Your task to perform on an android device: set an alarm Image 0: 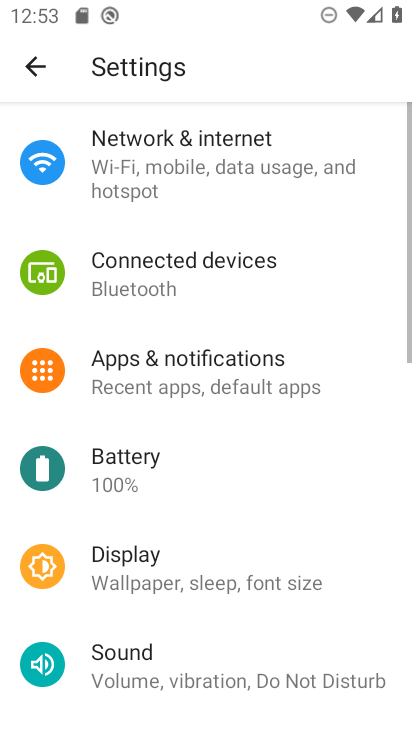
Step 0: press home button
Your task to perform on an android device: set an alarm Image 1: 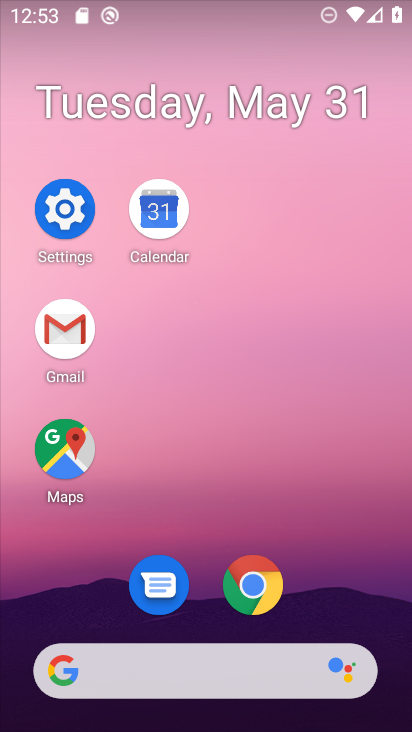
Step 1: drag from (340, 592) to (309, 133)
Your task to perform on an android device: set an alarm Image 2: 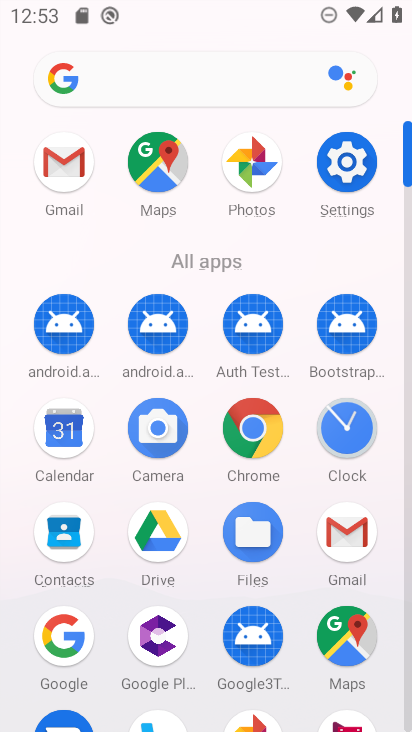
Step 2: drag from (345, 435) to (163, 349)
Your task to perform on an android device: set an alarm Image 3: 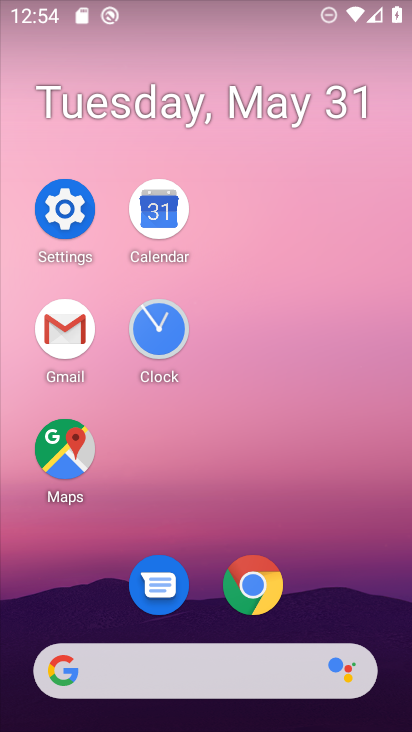
Step 3: click (163, 336)
Your task to perform on an android device: set an alarm Image 4: 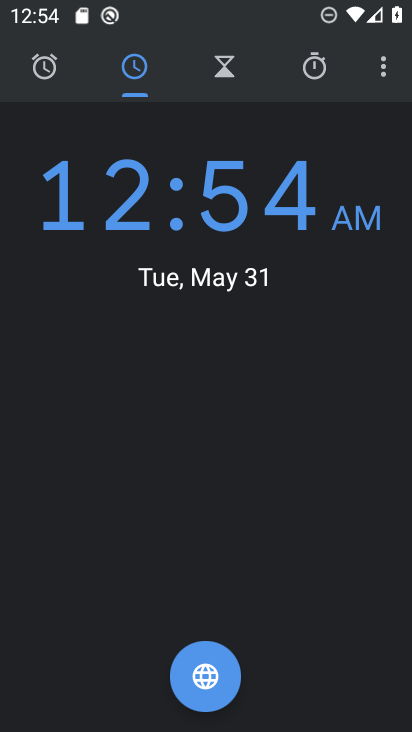
Step 4: click (51, 71)
Your task to perform on an android device: set an alarm Image 5: 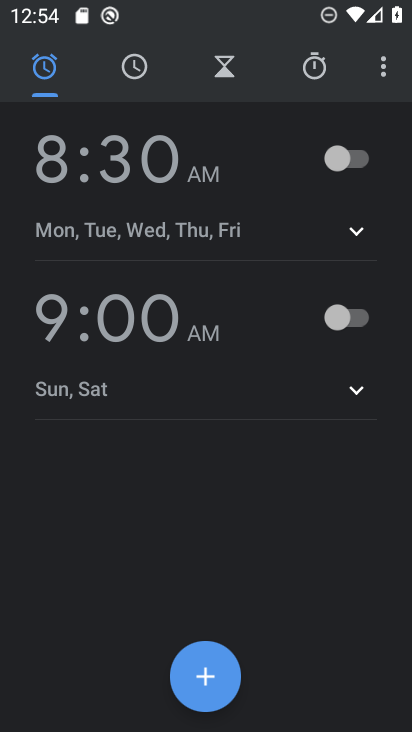
Step 5: click (357, 164)
Your task to perform on an android device: set an alarm Image 6: 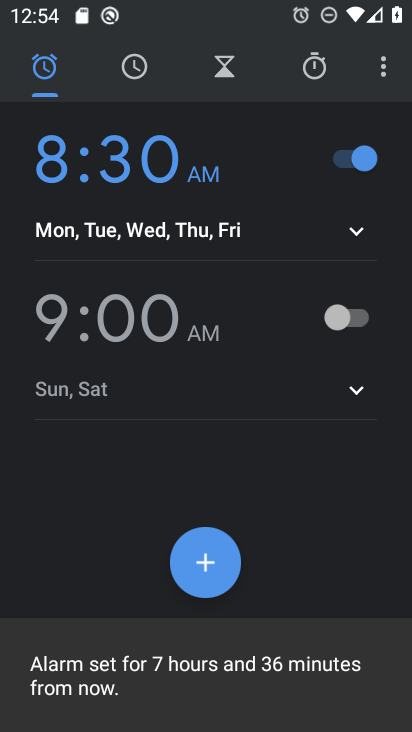
Step 6: task complete